Your task to perform on an android device: Go to CNN.com Image 0: 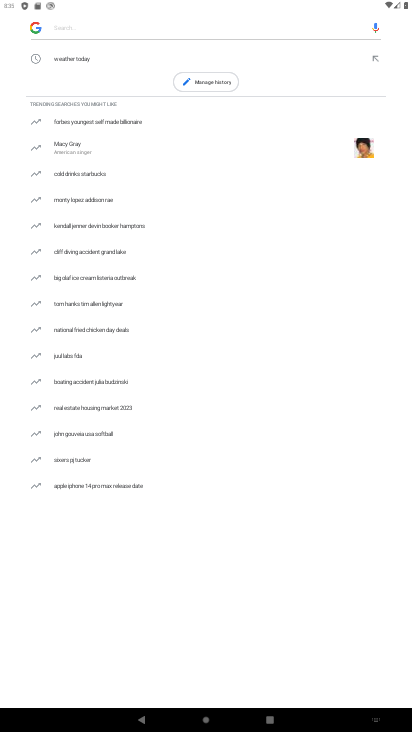
Step 0: press home button
Your task to perform on an android device: Go to CNN.com Image 1: 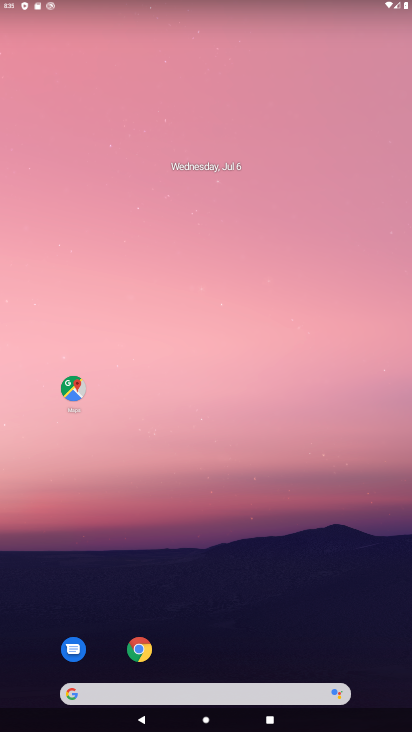
Step 1: click (136, 651)
Your task to perform on an android device: Go to CNN.com Image 2: 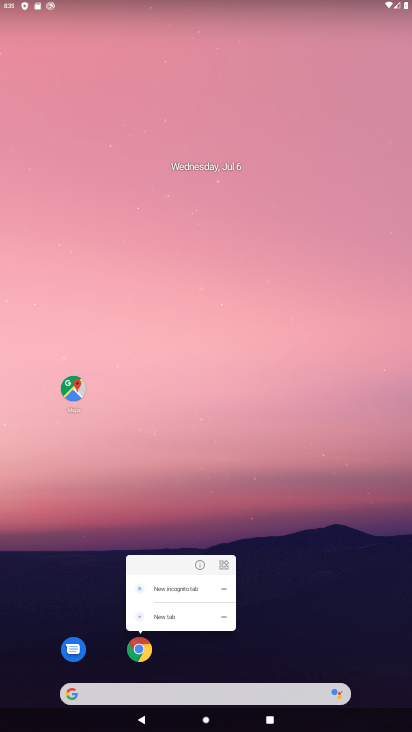
Step 2: click (140, 645)
Your task to perform on an android device: Go to CNN.com Image 3: 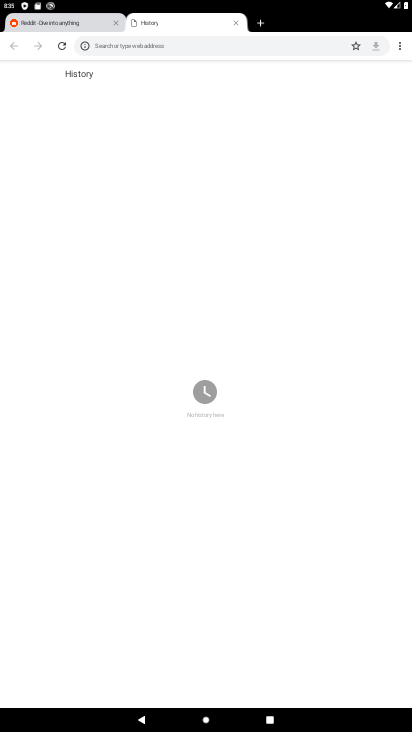
Step 3: click (140, 49)
Your task to perform on an android device: Go to CNN.com Image 4: 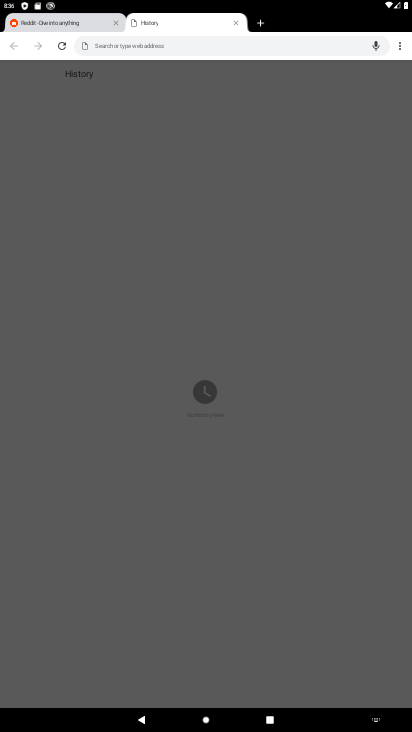
Step 4: type "cnn.com"
Your task to perform on an android device: Go to CNN.com Image 5: 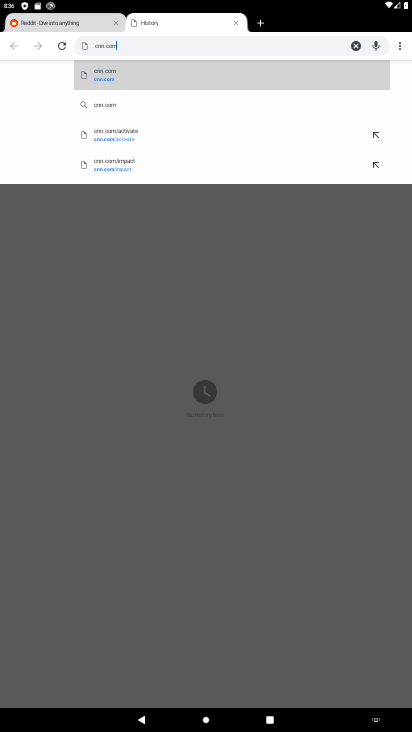
Step 5: type ""
Your task to perform on an android device: Go to CNN.com Image 6: 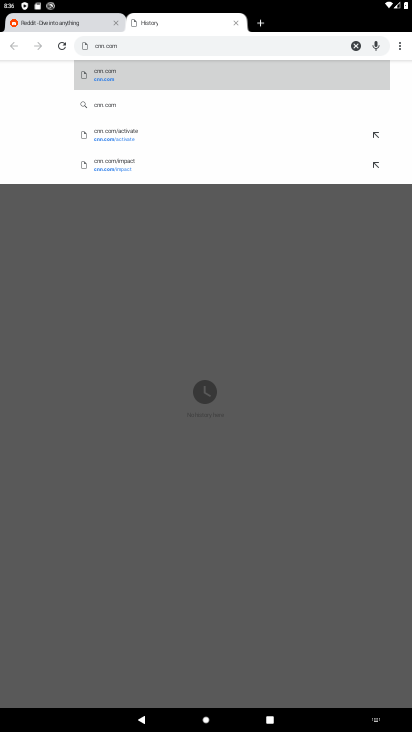
Step 6: click (119, 76)
Your task to perform on an android device: Go to CNN.com Image 7: 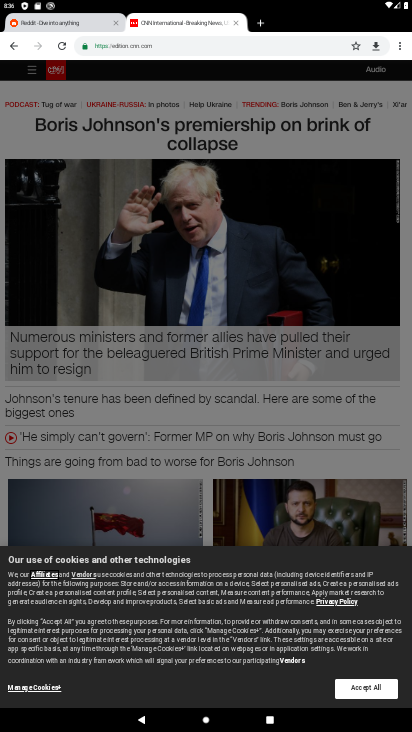
Step 7: click (297, 507)
Your task to perform on an android device: Go to CNN.com Image 8: 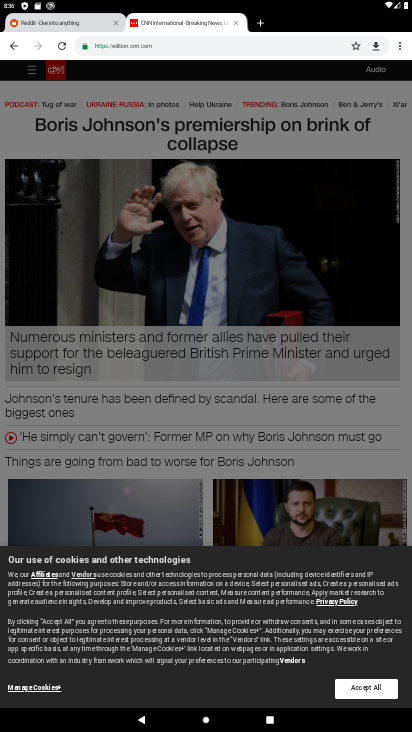
Step 8: click (369, 690)
Your task to perform on an android device: Go to CNN.com Image 9: 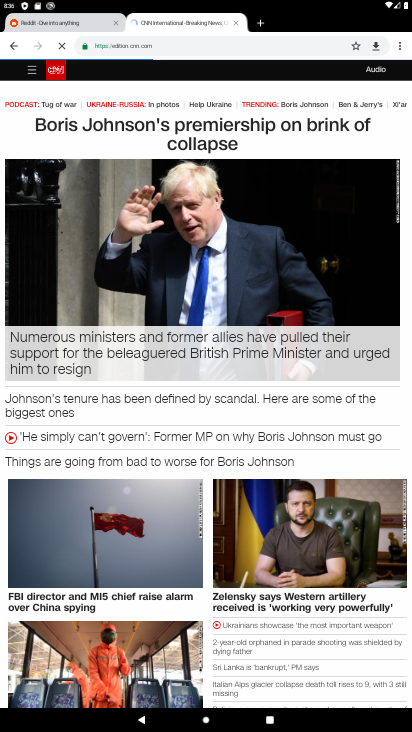
Step 9: task complete